Your task to perform on an android device: Search for seafood restaurants on Google Maps Image 0: 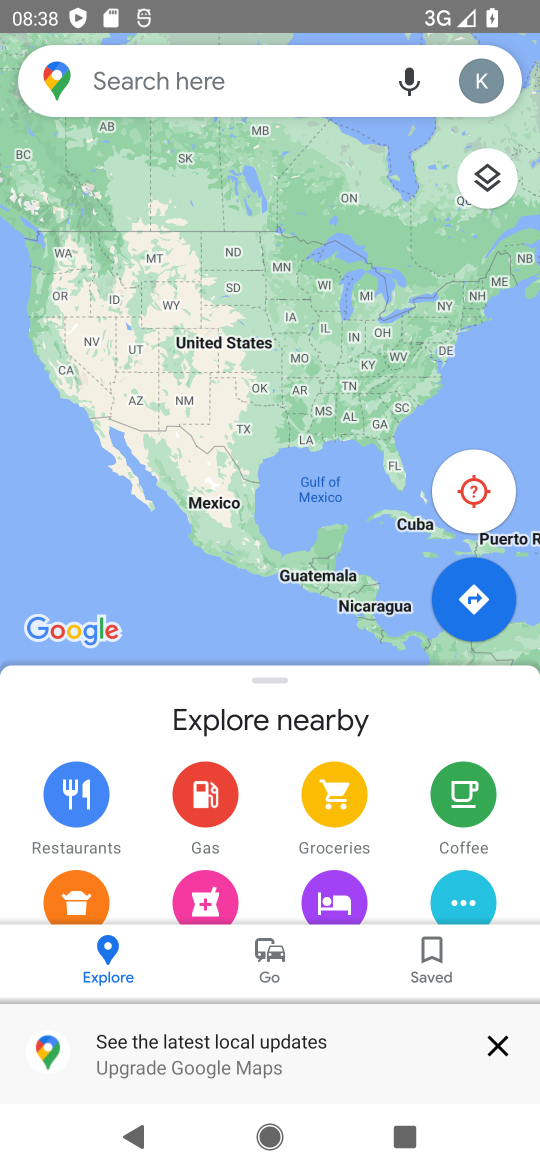
Step 0: click (234, 87)
Your task to perform on an android device: Search for seafood restaurants on Google Maps Image 1: 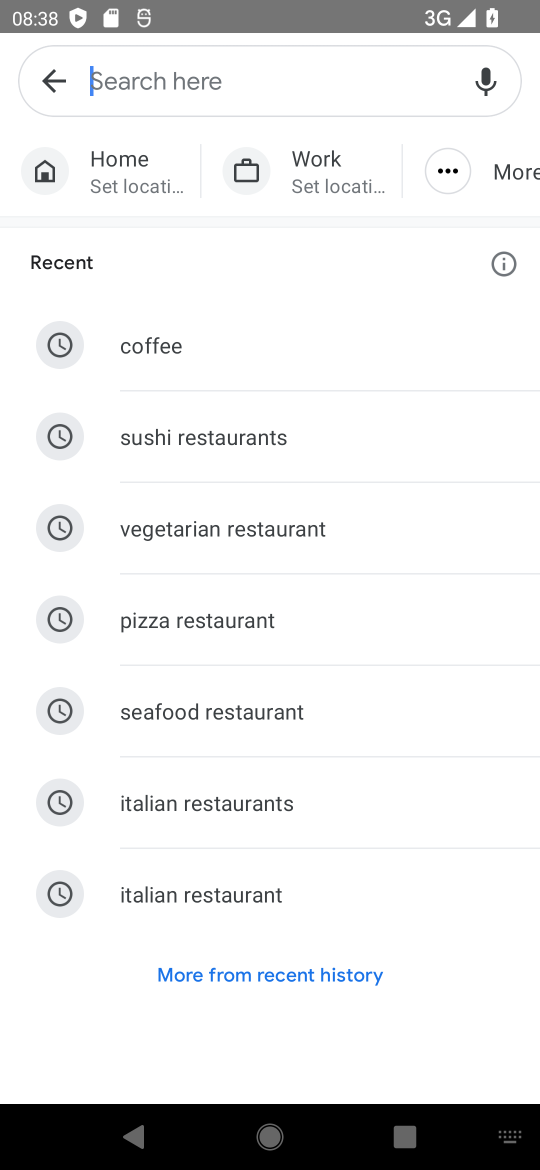
Step 1: click (175, 704)
Your task to perform on an android device: Search for seafood restaurants on Google Maps Image 2: 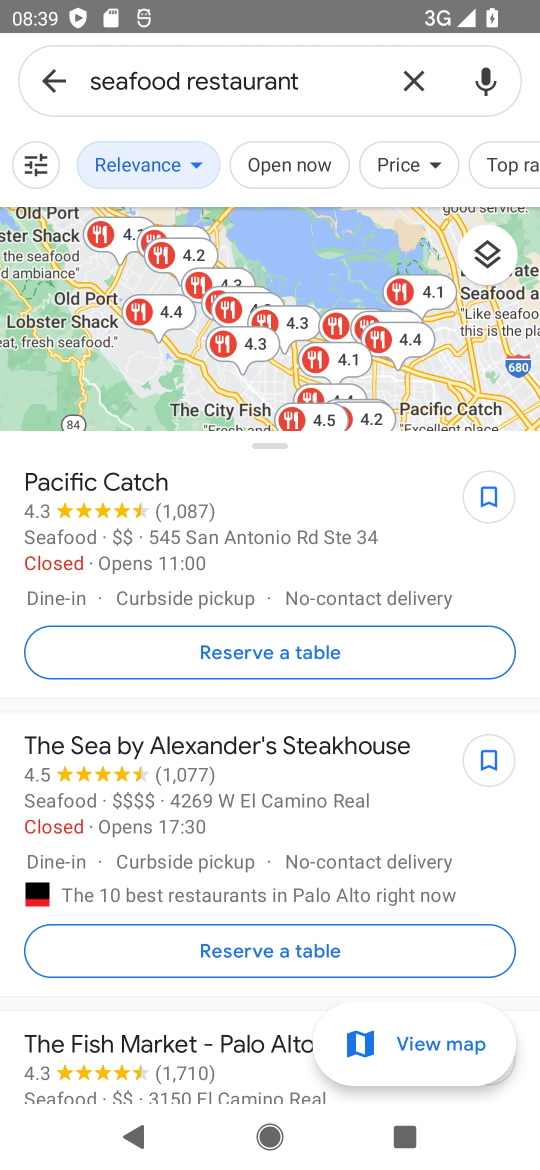
Step 2: task complete